Your task to perform on an android device: Go to Yahoo.com Image 0: 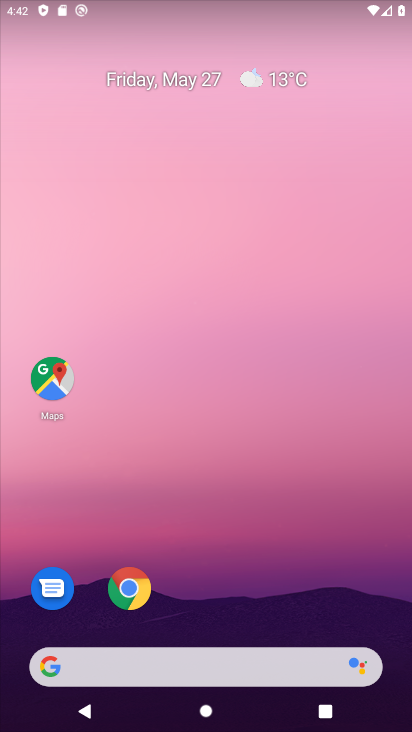
Step 0: click (119, 579)
Your task to perform on an android device: Go to Yahoo.com Image 1: 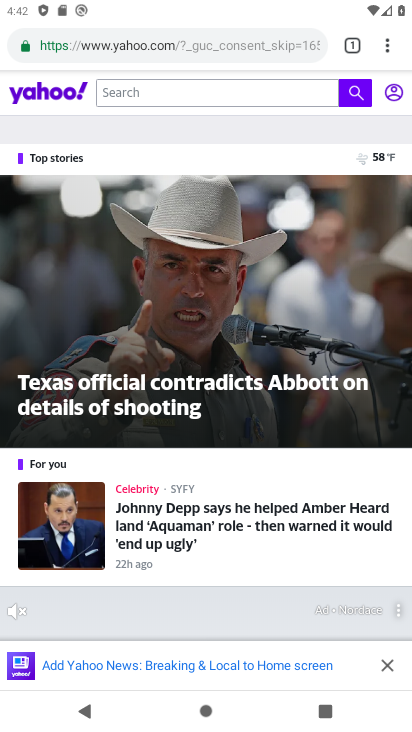
Step 1: task complete